Your task to perform on an android device: Open settings Image 0: 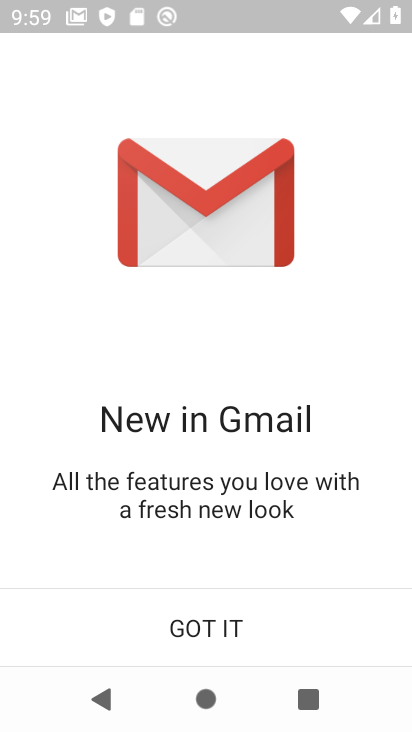
Step 0: click (212, 622)
Your task to perform on an android device: Open settings Image 1: 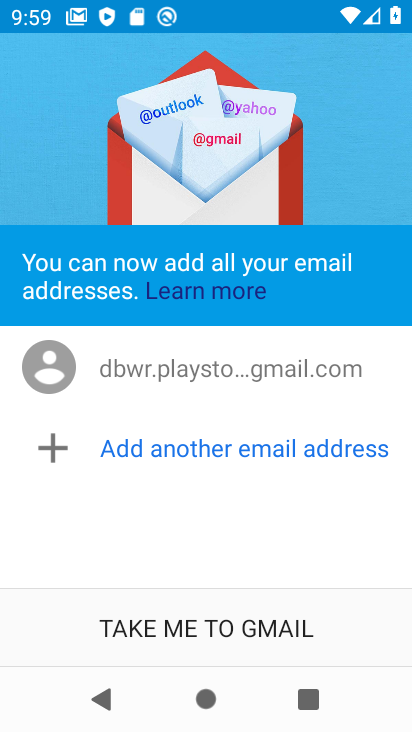
Step 1: press home button
Your task to perform on an android device: Open settings Image 2: 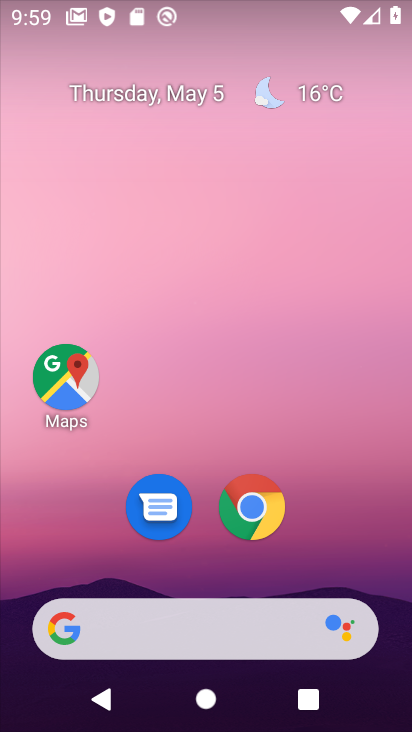
Step 2: drag from (172, 575) to (200, 102)
Your task to perform on an android device: Open settings Image 3: 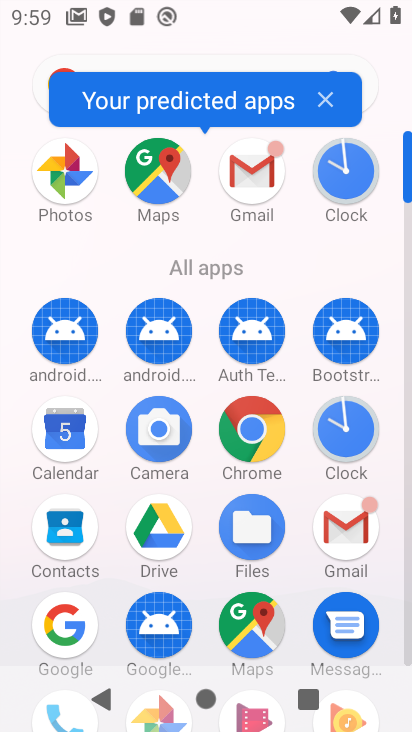
Step 3: drag from (294, 584) to (299, 246)
Your task to perform on an android device: Open settings Image 4: 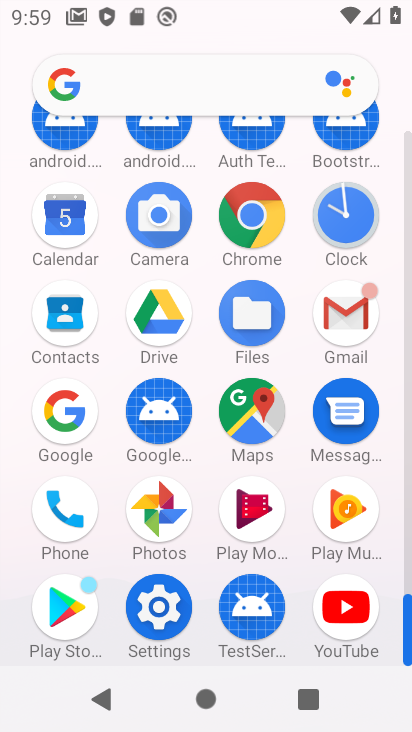
Step 4: click (158, 600)
Your task to perform on an android device: Open settings Image 5: 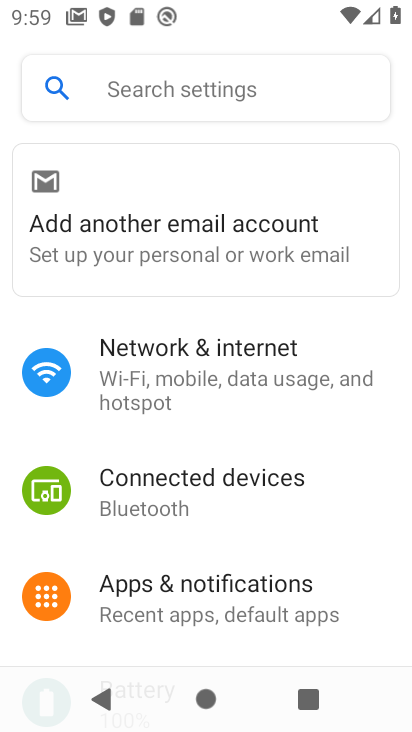
Step 5: task complete